Your task to perform on an android device: toggle data saver in the chrome app Image 0: 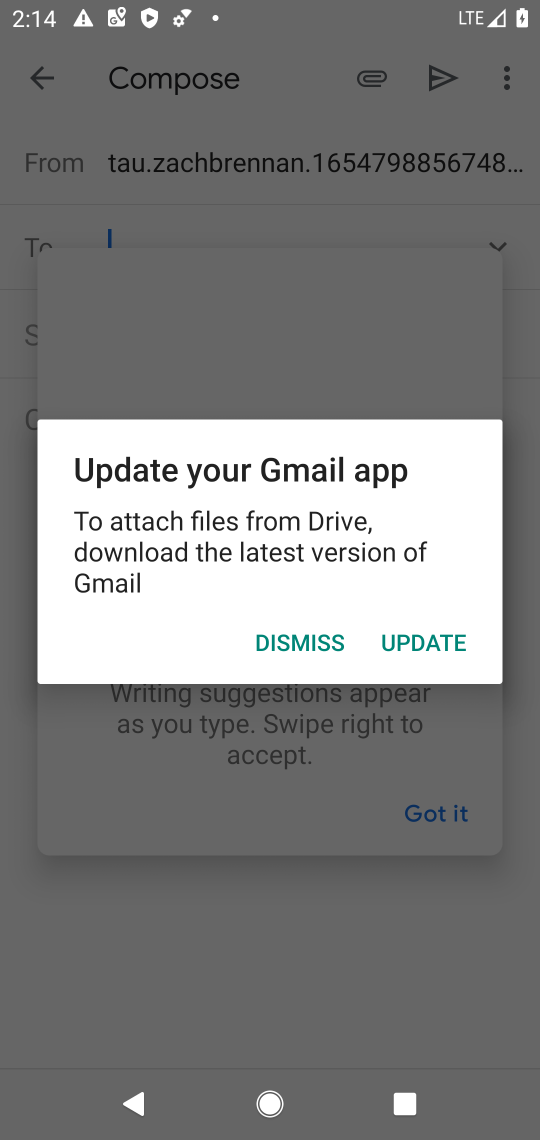
Step 0: press home button
Your task to perform on an android device: toggle data saver in the chrome app Image 1: 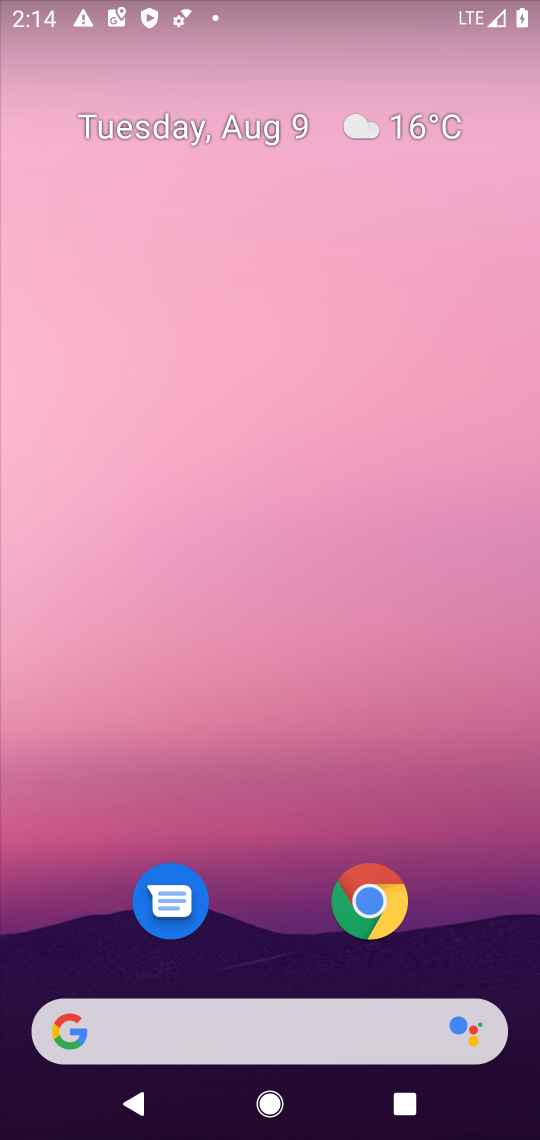
Step 1: click (368, 900)
Your task to perform on an android device: toggle data saver in the chrome app Image 2: 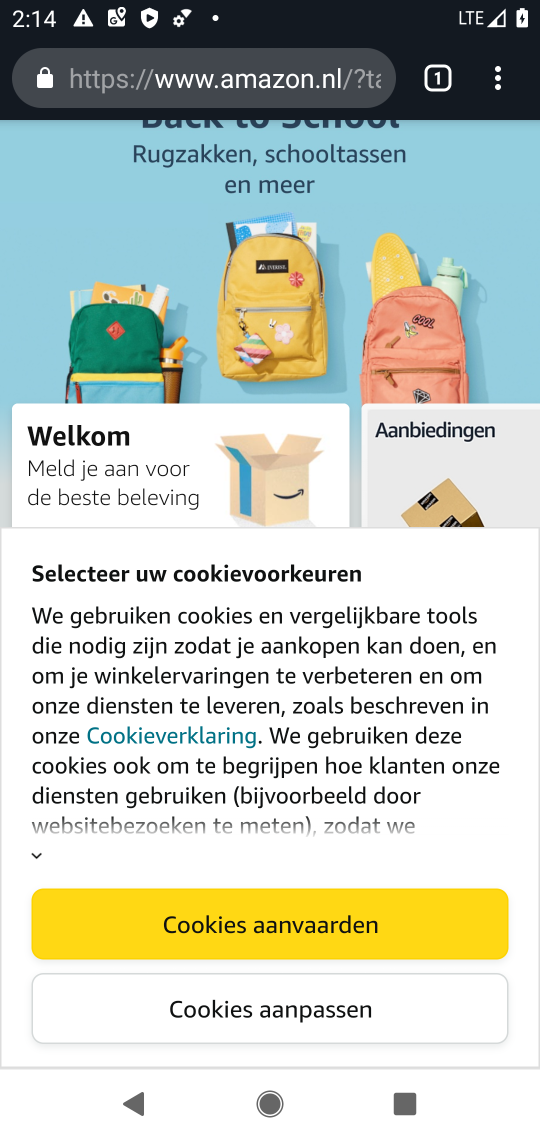
Step 2: click (491, 87)
Your task to perform on an android device: toggle data saver in the chrome app Image 3: 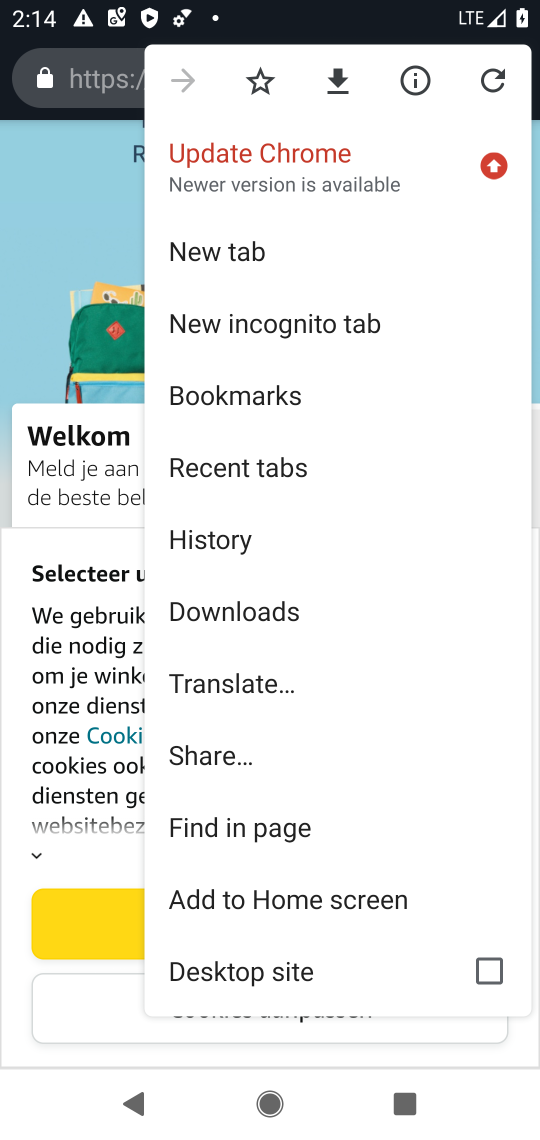
Step 3: drag from (359, 945) to (400, 343)
Your task to perform on an android device: toggle data saver in the chrome app Image 4: 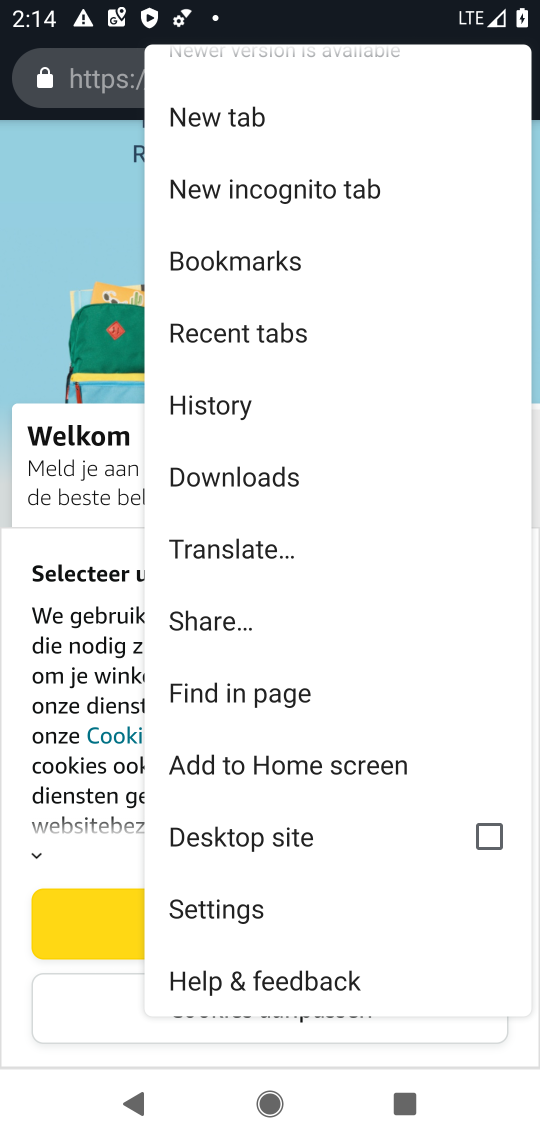
Step 4: click (205, 902)
Your task to perform on an android device: toggle data saver in the chrome app Image 5: 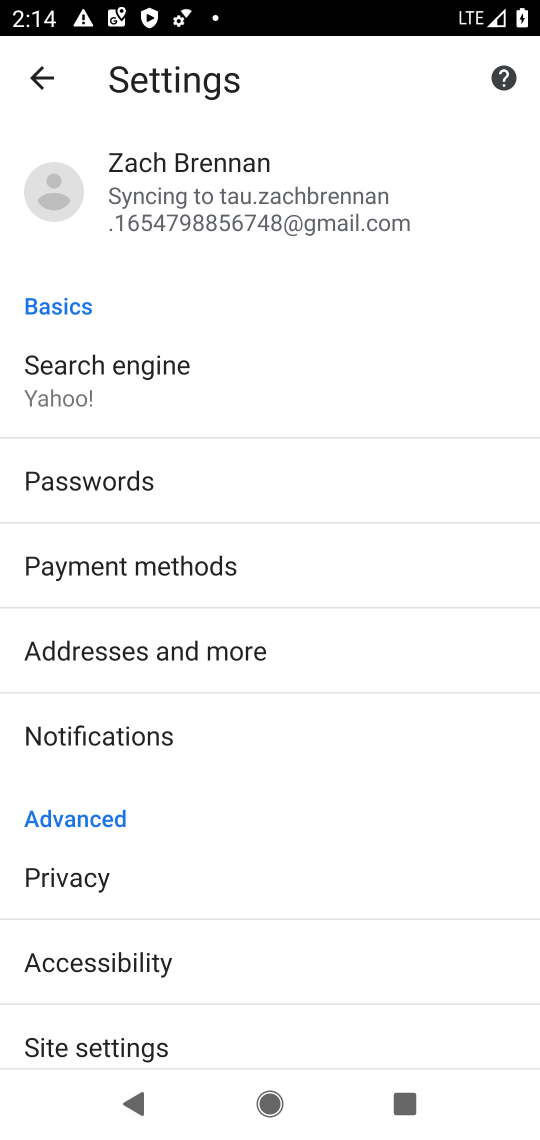
Step 5: drag from (275, 971) to (287, 419)
Your task to perform on an android device: toggle data saver in the chrome app Image 6: 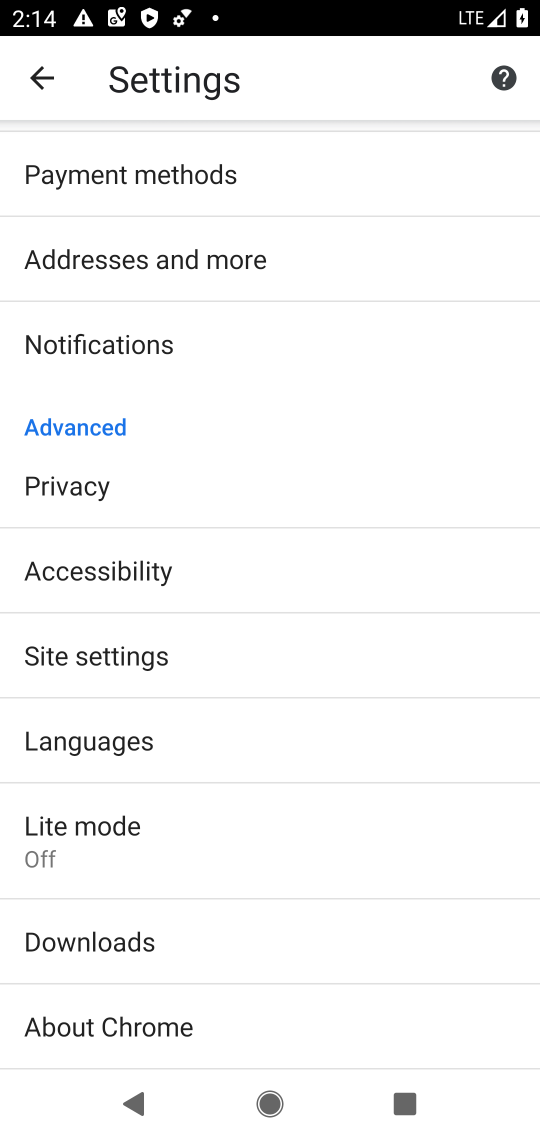
Step 6: click (76, 836)
Your task to perform on an android device: toggle data saver in the chrome app Image 7: 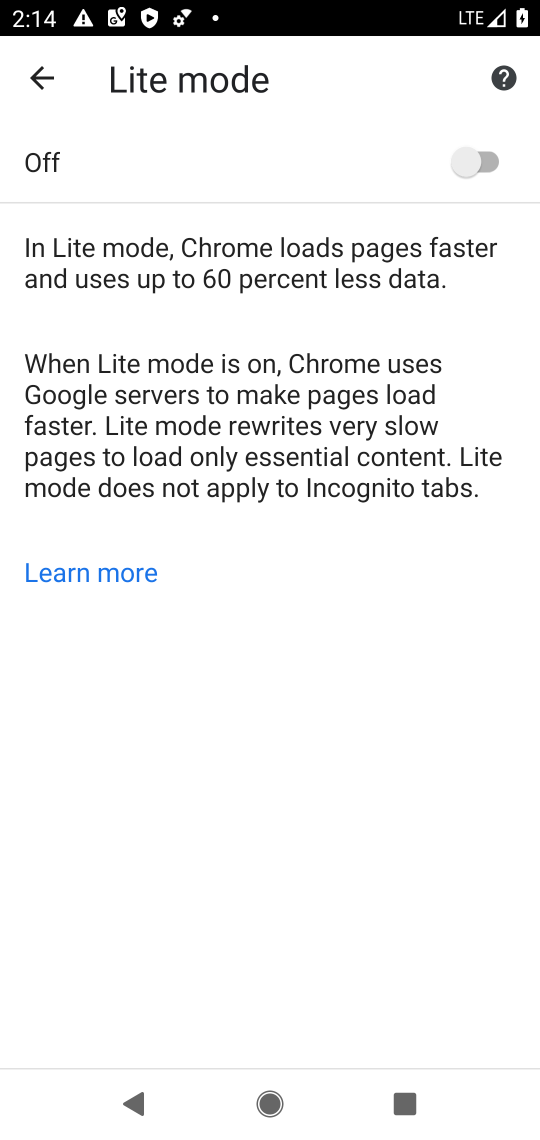
Step 7: click (489, 161)
Your task to perform on an android device: toggle data saver in the chrome app Image 8: 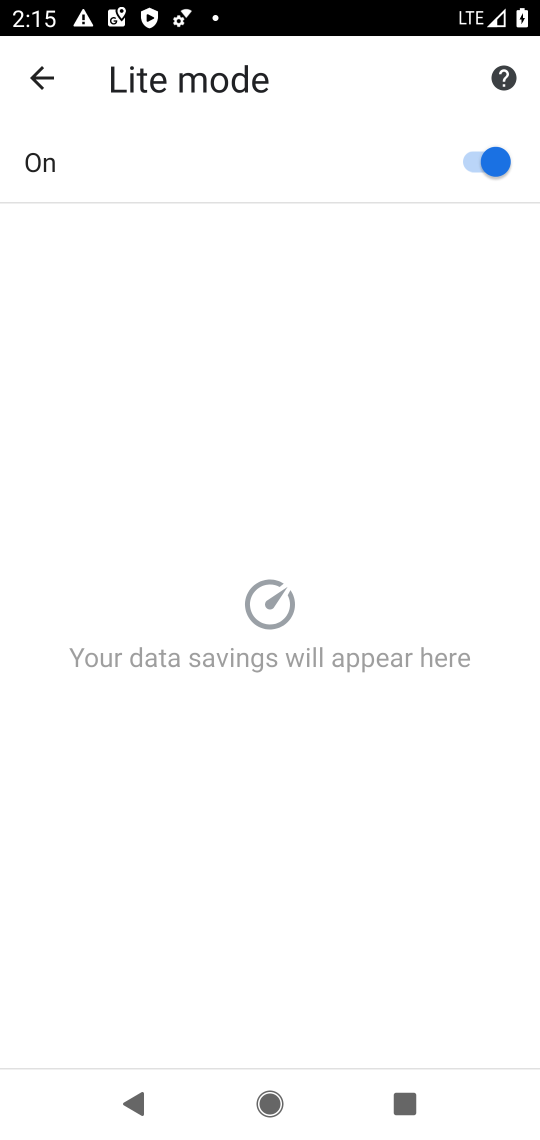
Step 8: task complete